Your task to perform on an android device: empty trash in google photos Image 0: 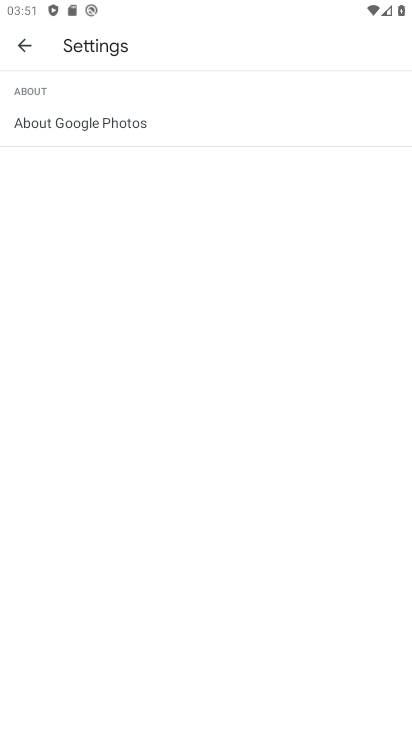
Step 0: press home button
Your task to perform on an android device: empty trash in google photos Image 1: 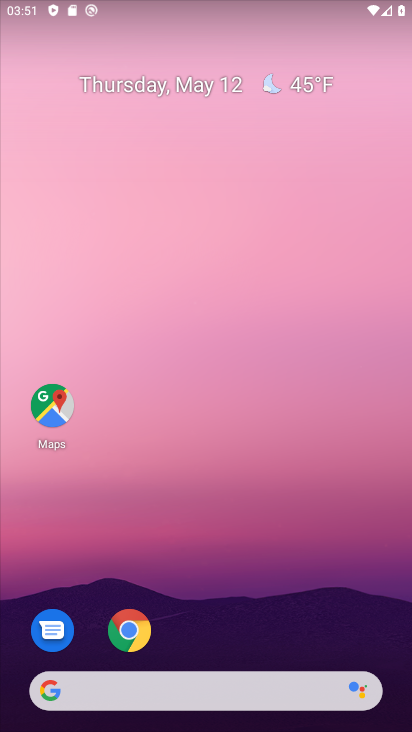
Step 1: drag from (225, 577) to (409, 106)
Your task to perform on an android device: empty trash in google photos Image 2: 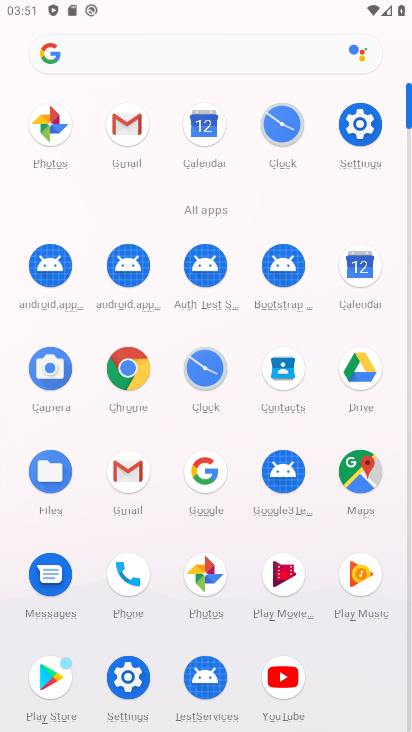
Step 2: click (213, 584)
Your task to perform on an android device: empty trash in google photos Image 3: 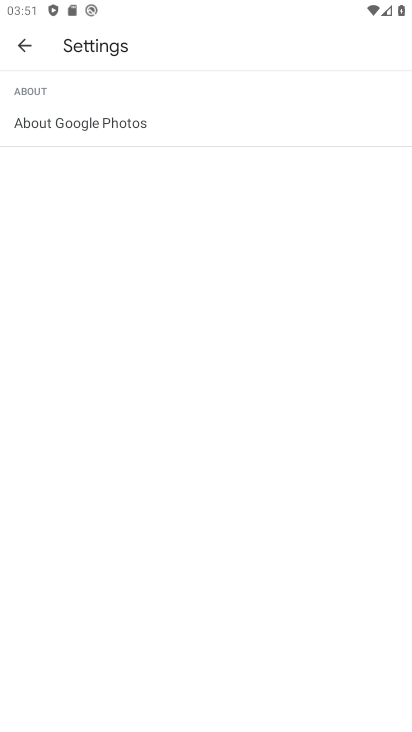
Step 3: click (20, 40)
Your task to perform on an android device: empty trash in google photos Image 4: 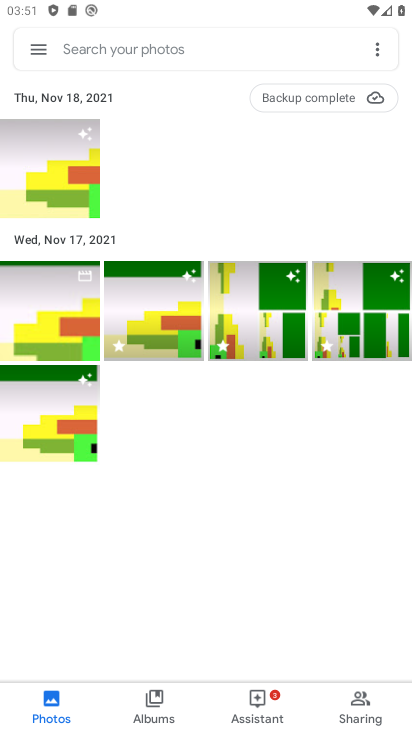
Step 4: click (42, 47)
Your task to perform on an android device: empty trash in google photos Image 5: 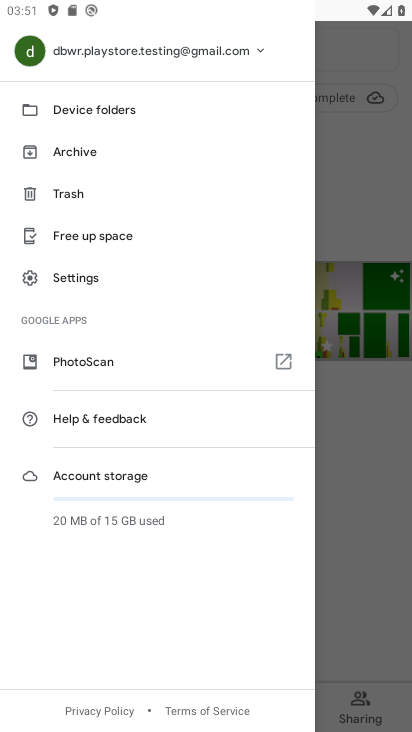
Step 5: click (78, 208)
Your task to perform on an android device: empty trash in google photos Image 6: 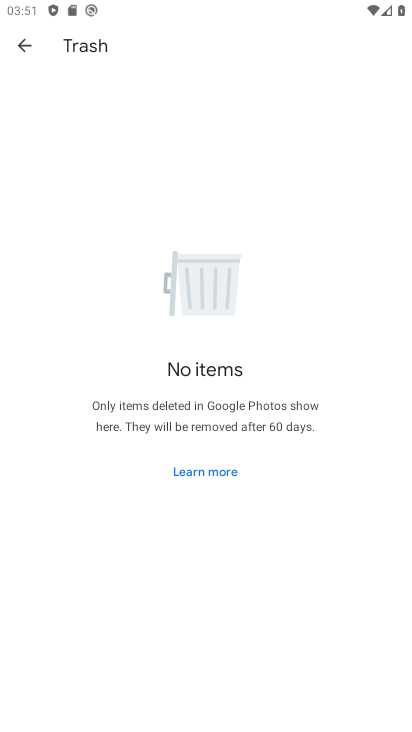
Step 6: task complete